Your task to perform on an android device: see tabs open on other devices in the chrome app Image 0: 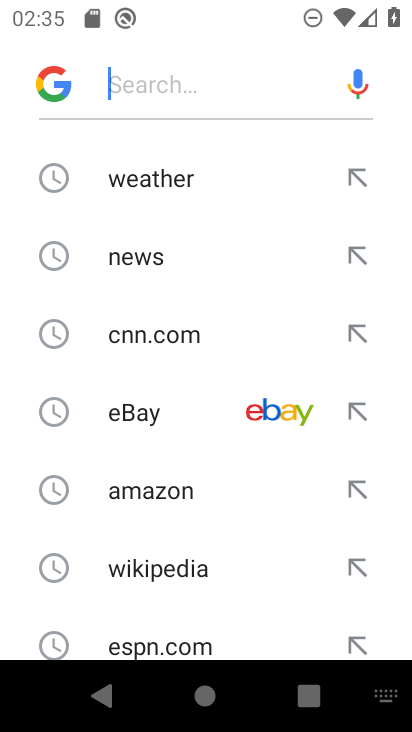
Step 0: press home button
Your task to perform on an android device: see tabs open on other devices in the chrome app Image 1: 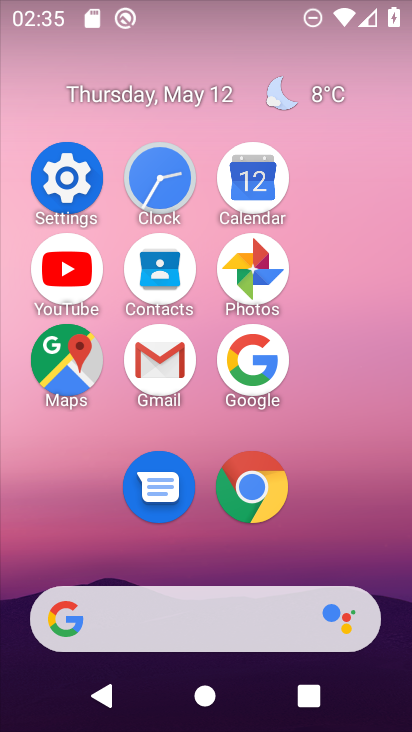
Step 1: click (232, 494)
Your task to perform on an android device: see tabs open on other devices in the chrome app Image 2: 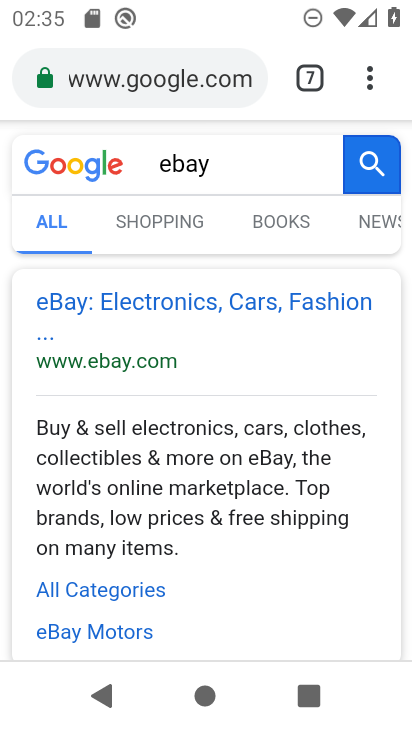
Step 2: click (369, 83)
Your task to perform on an android device: see tabs open on other devices in the chrome app Image 3: 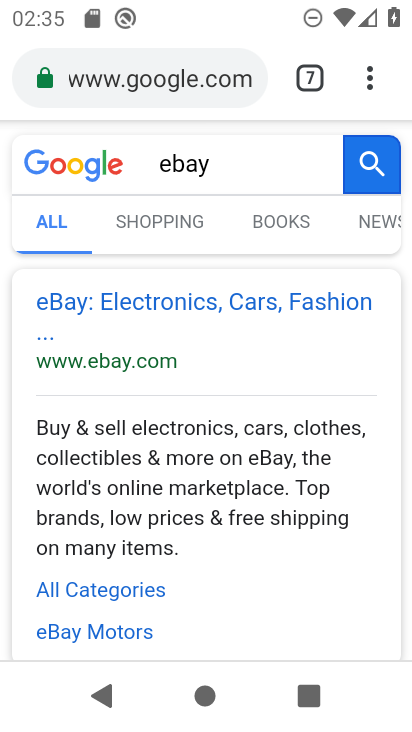
Step 3: click (373, 86)
Your task to perform on an android device: see tabs open on other devices in the chrome app Image 4: 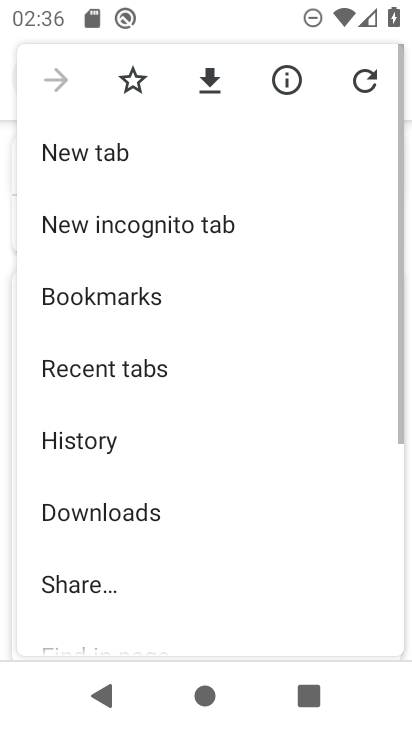
Step 4: click (201, 380)
Your task to perform on an android device: see tabs open on other devices in the chrome app Image 5: 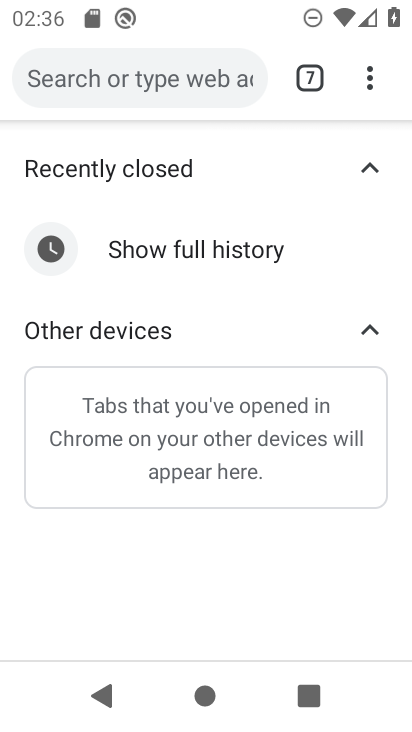
Step 5: task complete